Your task to perform on an android device: What's the weather like inToronto? Image 0: 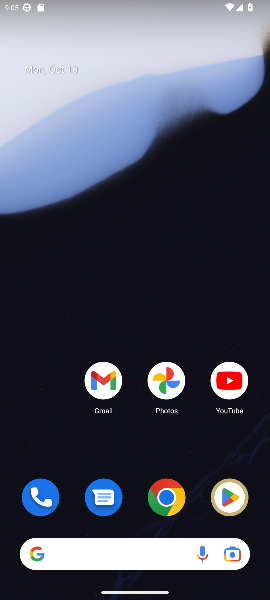
Step 0: drag from (142, 478) to (141, 245)
Your task to perform on an android device: What's the weather like inToronto? Image 1: 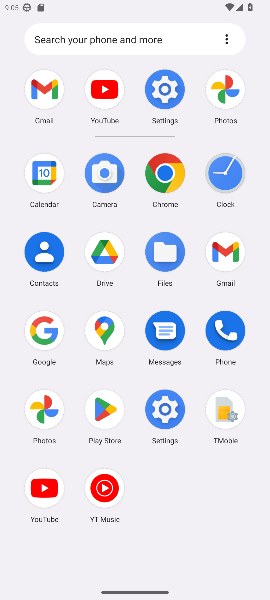
Step 1: click (48, 338)
Your task to perform on an android device: What's the weather like inToronto? Image 2: 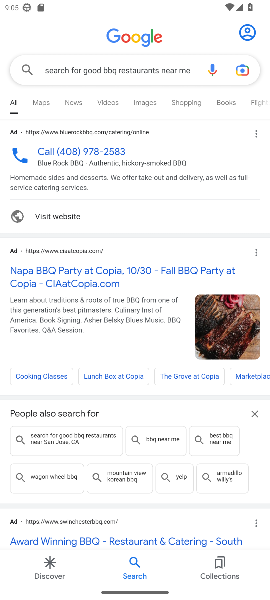
Step 2: click (128, 70)
Your task to perform on an android device: What's the weather like inToronto? Image 3: 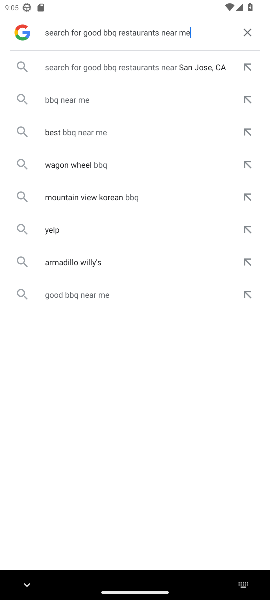
Step 3: click (248, 27)
Your task to perform on an android device: What's the weather like inToronto? Image 4: 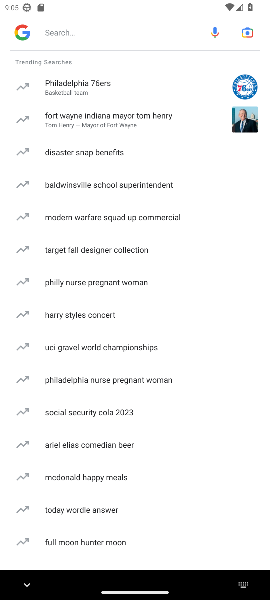
Step 4: click (114, 32)
Your task to perform on an android device: What's the weather like inToronto? Image 5: 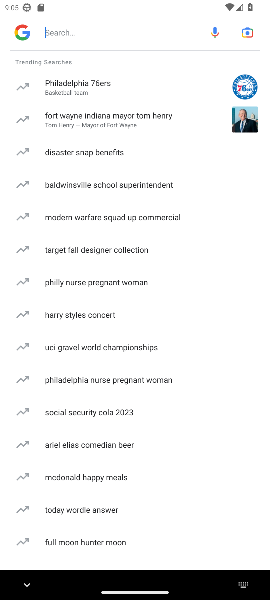
Step 5: type "What's the weather like inToronto? "
Your task to perform on an android device: What's the weather like inToronto? Image 6: 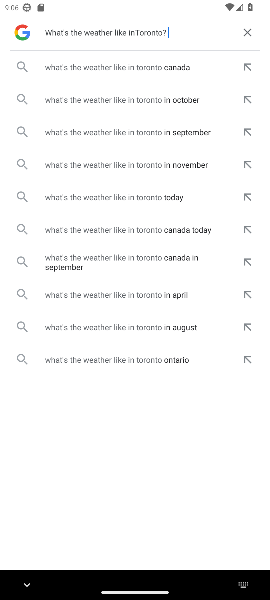
Step 6: click (115, 64)
Your task to perform on an android device: What's the weather like inToronto? Image 7: 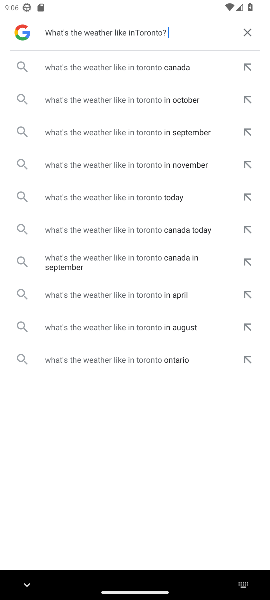
Step 7: click (115, 64)
Your task to perform on an android device: What's the weather like inToronto? Image 8: 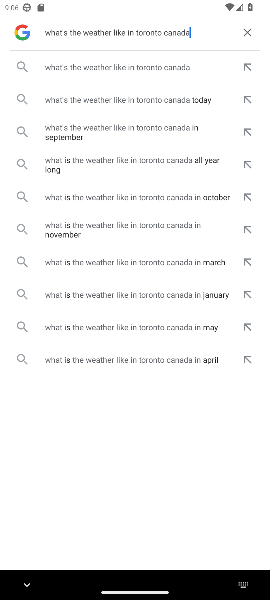
Step 8: click (96, 67)
Your task to perform on an android device: What's the weather like inToronto? Image 9: 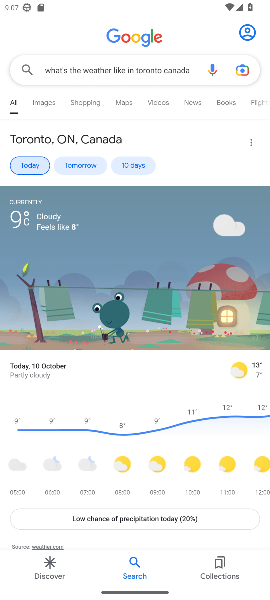
Step 9: task complete